Your task to perform on an android device: add a label to a message in the gmail app Image 0: 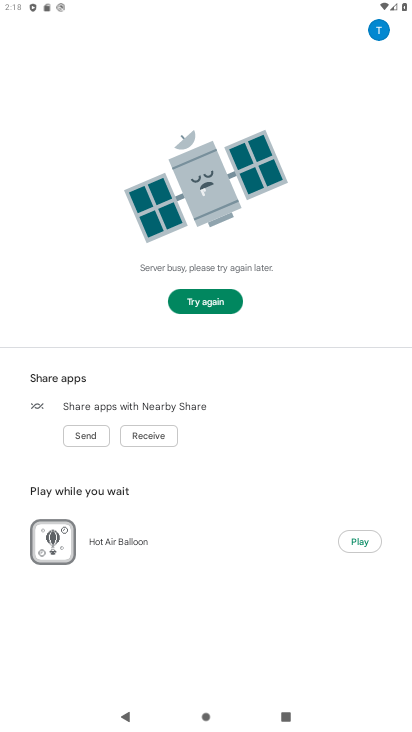
Step 0: press home button
Your task to perform on an android device: add a label to a message in the gmail app Image 1: 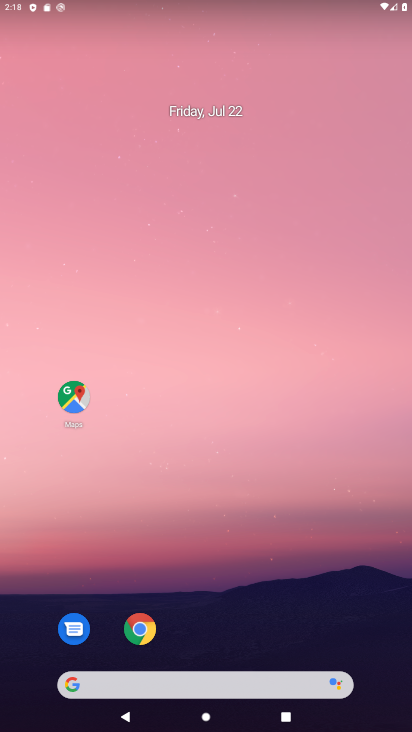
Step 1: drag from (212, 687) to (170, 488)
Your task to perform on an android device: add a label to a message in the gmail app Image 2: 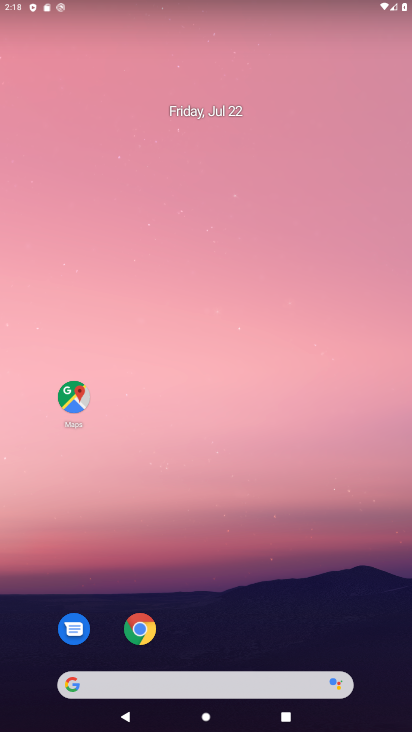
Step 2: drag from (204, 674) to (263, 272)
Your task to perform on an android device: add a label to a message in the gmail app Image 3: 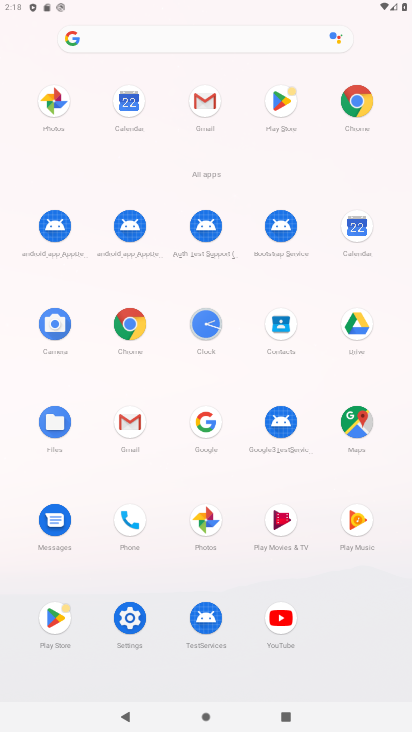
Step 3: click (113, 436)
Your task to perform on an android device: add a label to a message in the gmail app Image 4: 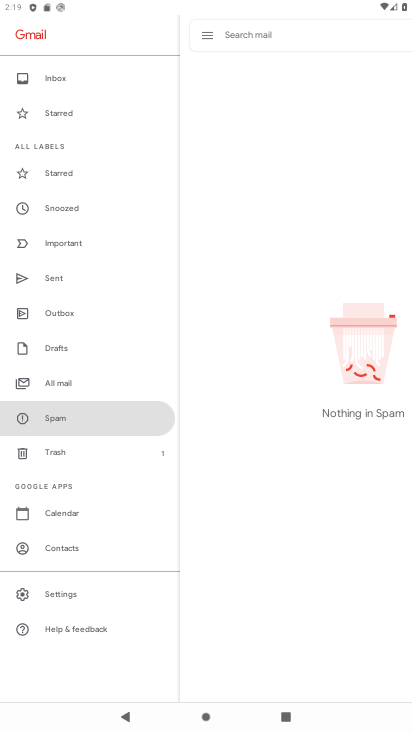
Step 4: click (72, 382)
Your task to perform on an android device: add a label to a message in the gmail app Image 5: 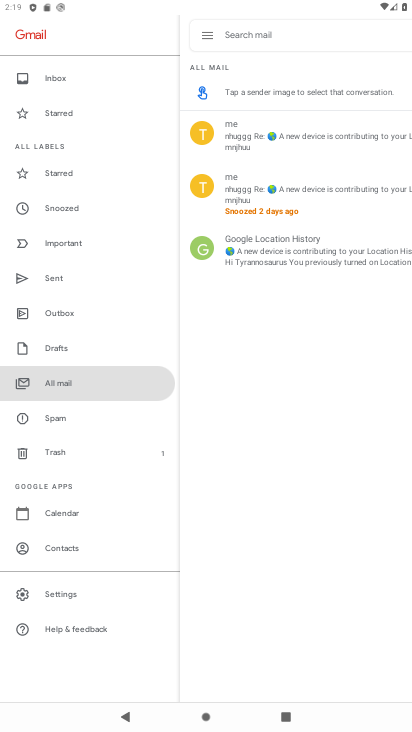
Step 5: click (188, 137)
Your task to perform on an android device: add a label to a message in the gmail app Image 6: 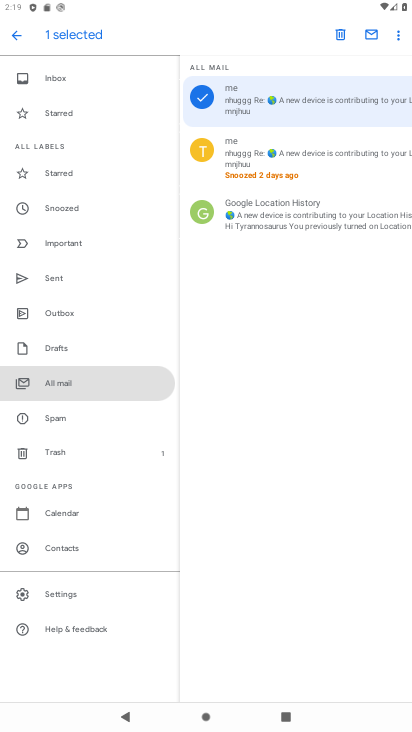
Step 6: click (393, 38)
Your task to perform on an android device: add a label to a message in the gmail app Image 7: 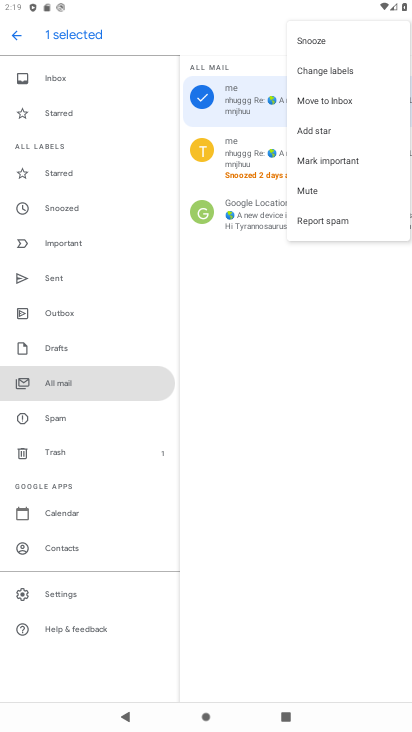
Step 7: click (315, 63)
Your task to perform on an android device: add a label to a message in the gmail app Image 8: 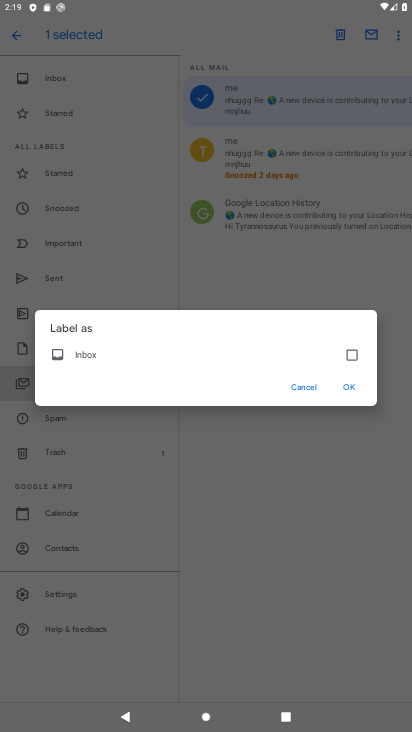
Step 8: click (346, 356)
Your task to perform on an android device: add a label to a message in the gmail app Image 9: 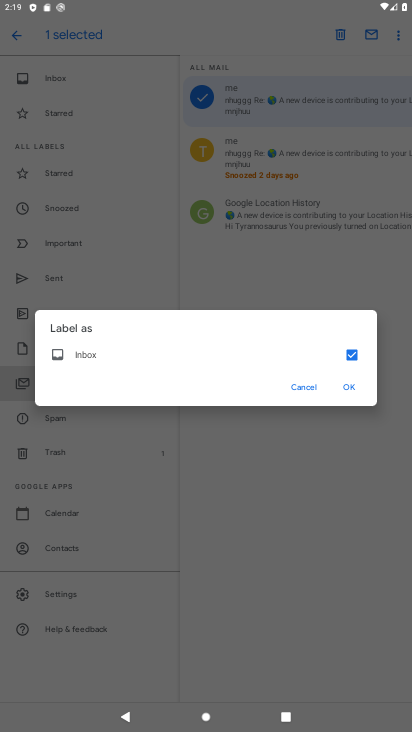
Step 9: click (347, 399)
Your task to perform on an android device: add a label to a message in the gmail app Image 10: 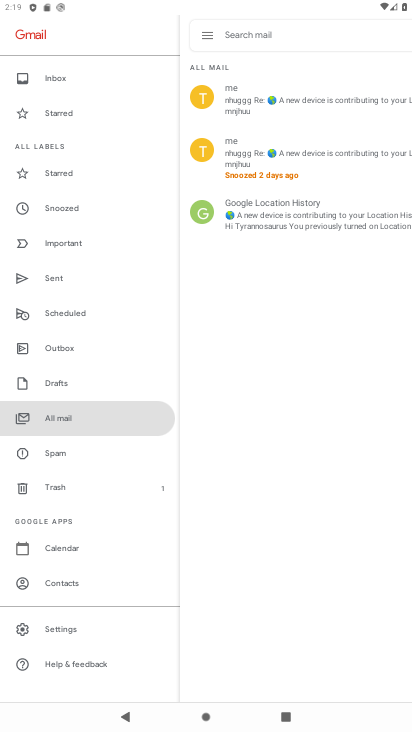
Step 10: task complete